Your task to perform on an android device: Search for seafood restaurants on Google Maps Image 0: 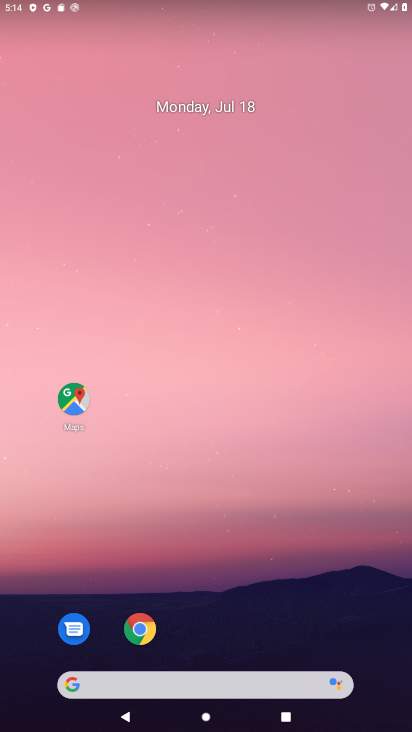
Step 0: drag from (257, 552) to (190, 74)
Your task to perform on an android device: Search for seafood restaurants on Google Maps Image 1: 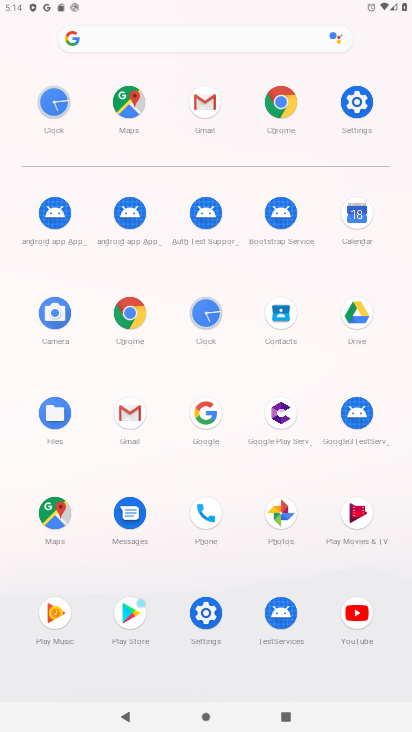
Step 1: click (53, 518)
Your task to perform on an android device: Search for seafood restaurants on Google Maps Image 2: 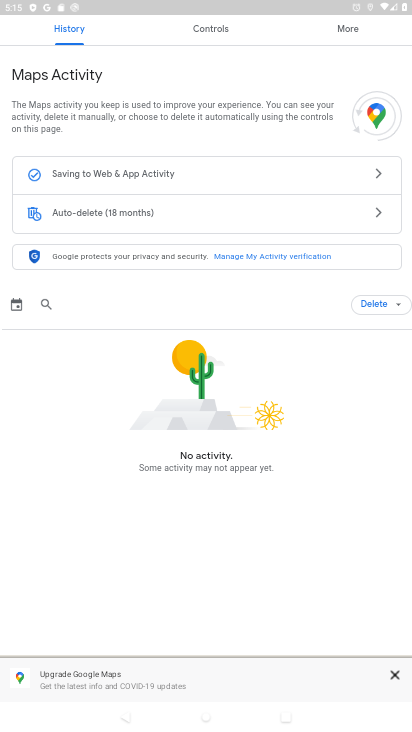
Step 2: press back button
Your task to perform on an android device: Search for seafood restaurants on Google Maps Image 3: 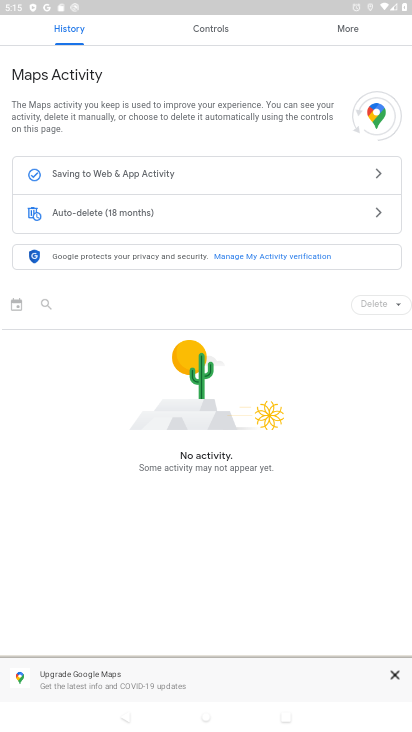
Step 3: press back button
Your task to perform on an android device: Search for seafood restaurants on Google Maps Image 4: 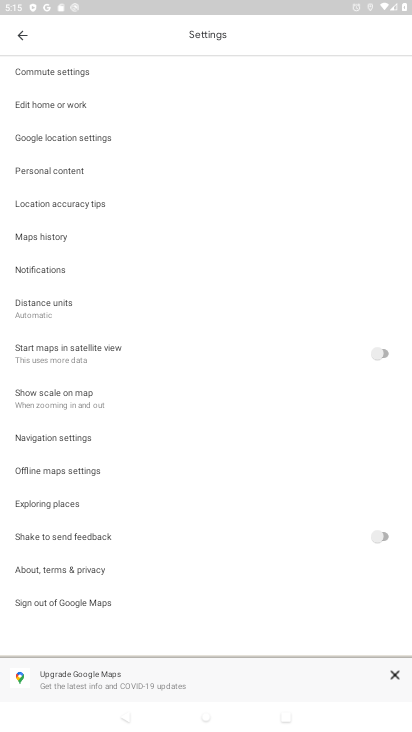
Step 4: press back button
Your task to perform on an android device: Search for seafood restaurants on Google Maps Image 5: 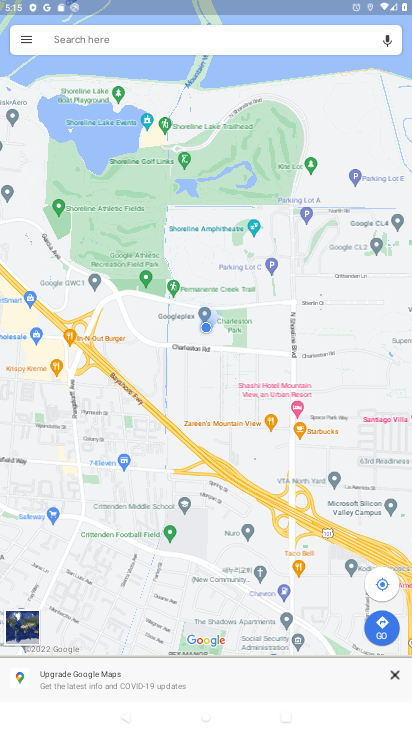
Step 5: click (237, 36)
Your task to perform on an android device: Search for seafood restaurants on Google Maps Image 6: 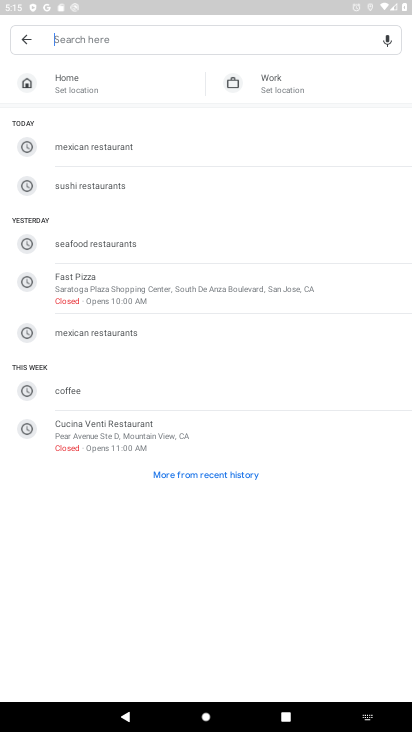
Step 6: click (90, 242)
Your task to perform on an android device: Search for seafood restaurants on Google Maps Image 7: 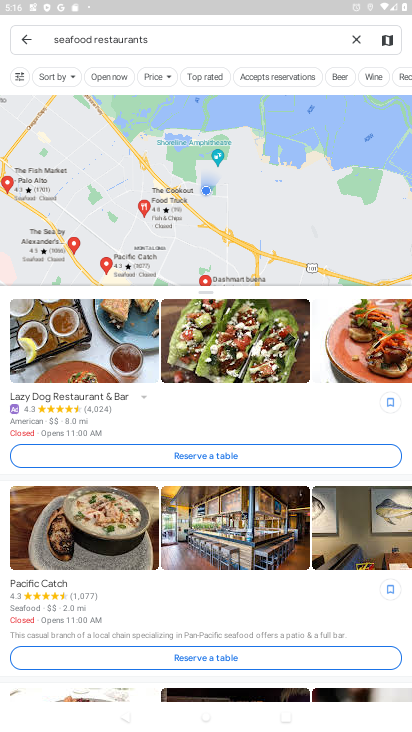
Step 7: task complete